Your task to perform on an android device: open the mobile data screen to see how much data has been used Image 0: 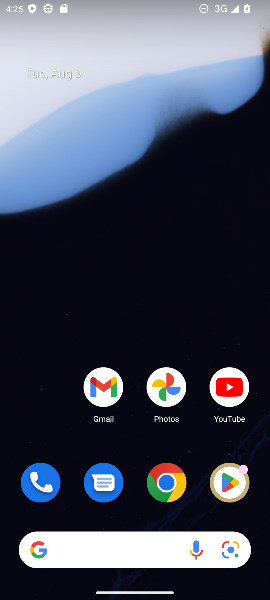
Step 0: drag from (126, 452) to (129, 104)
Your task to perform on an android device: open the mobile data screen to see how much data has been used Image 1: 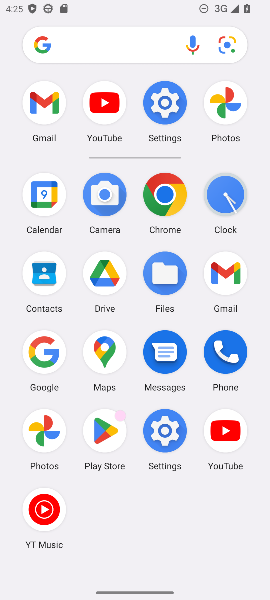
Step 1: click (161, 109)
Your task to perform on an android device: open the mobile data screen to see how much data has been used Image 2: 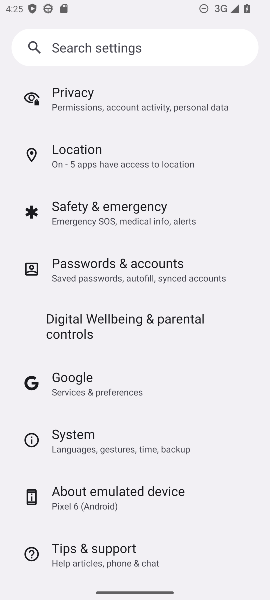
Step 2: drag from (131, 170) to (158, 472)
Your task to perform on an android device: open the mobile data screen to see how much data has been used Image 3: 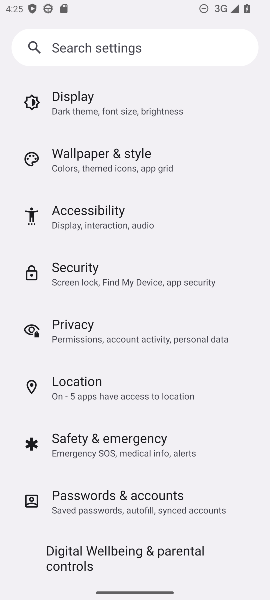
Step 3: drag from (129, 142) to (138, 452)
Your task to perform on an android device: open the mobile data screen to see how much data has been used Image 4: 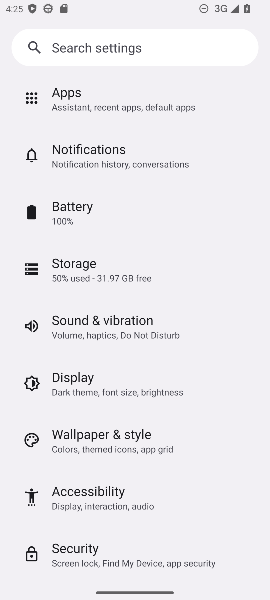
Step 4: drag from (105, 161) to (145, 448)
Your task to perform on an android device: open the mobile data screen to see how much data has been used Image 5: 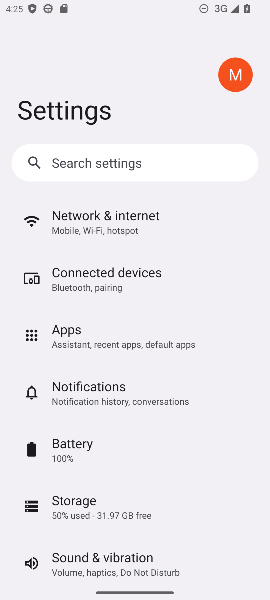
Step 5: click (111, 221)
Your task to perform on an android device: open the mobile data screen to see how much data has been used Image 6: 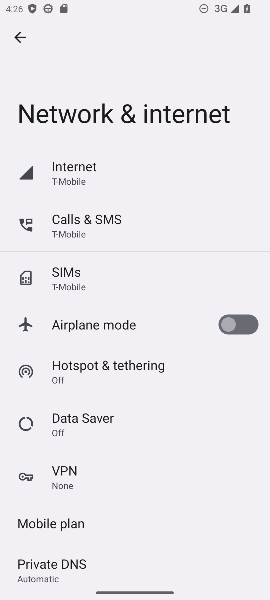
Step 6: click (96, 177)
Your task to perform on an android device: open the mobile data screen to see how much data has been used Image 7: 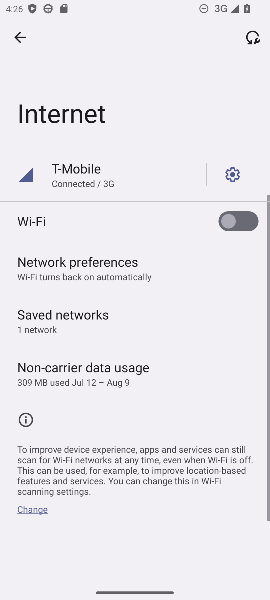
Step 7: click (150, 382)
Your task to perform on an android device: open the mobile data screen to see how much data has been used Image 8: 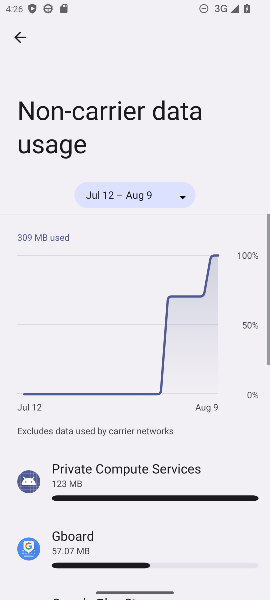
Step 8: task complete